Your task to perform on an android device: turn off improve location accuracy Image 0: 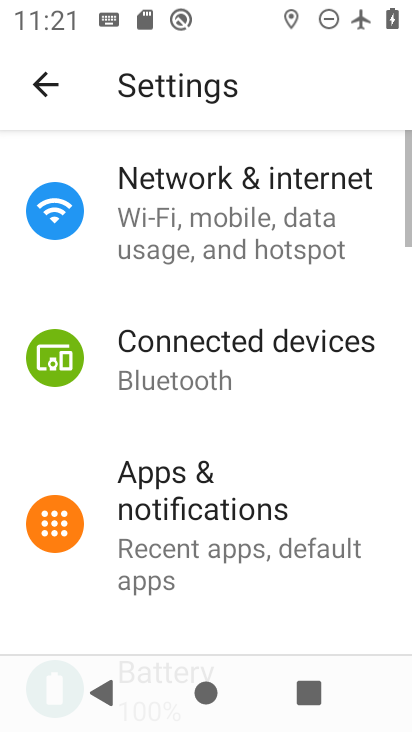
Step 0: press home button
Your task to perform on an android device: turn off improve location accuracy Image 1: 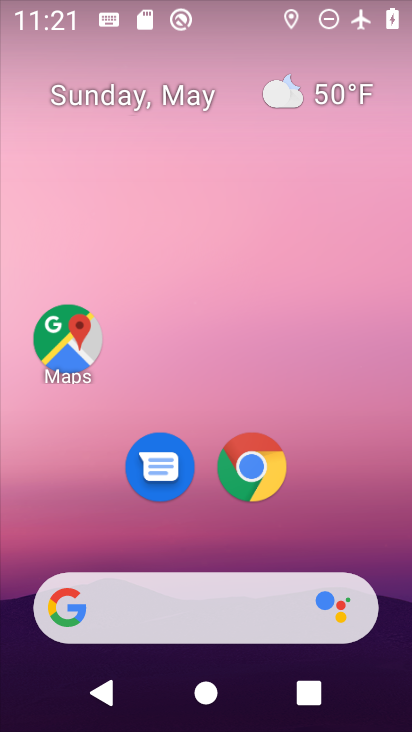
Step 1: drag from (209, 537) to (356, 45)
Your task to perform on an android device: turn off improve location accuracy Image 2: 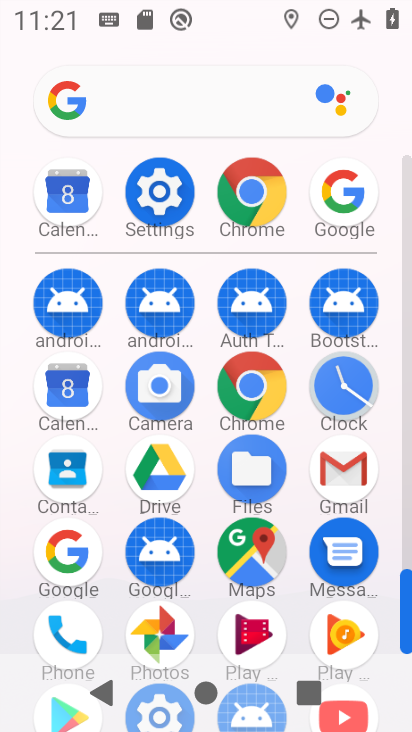
Step 2: click (164, 213)
Your task to perform on an android device: turn off improve location accuracy Image 3: 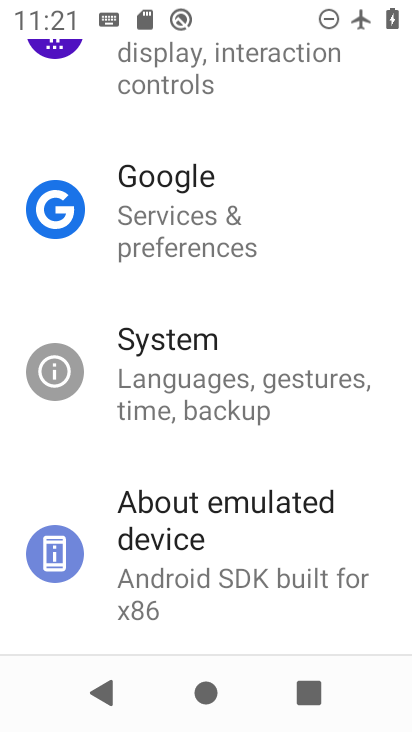
Step 3: drag from (257, 139) to (279, 527)
Your task to perform on an android device: turn off improve location accuracy Image 4: 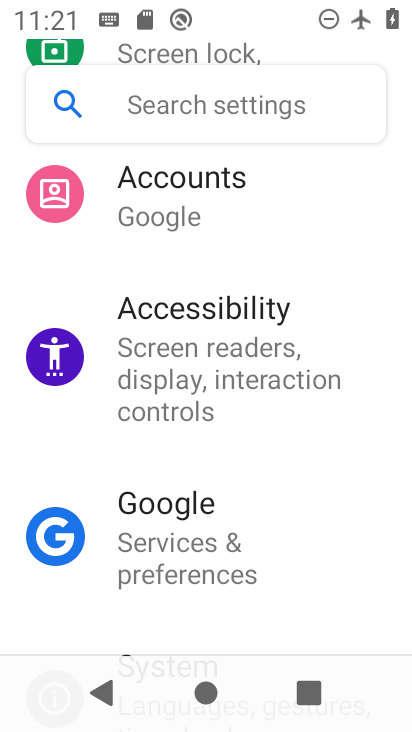
Step 4: drag from (262, 175) to (316, 523)
Your task to perform on an android device: turn off improve location accuracy Image 5: 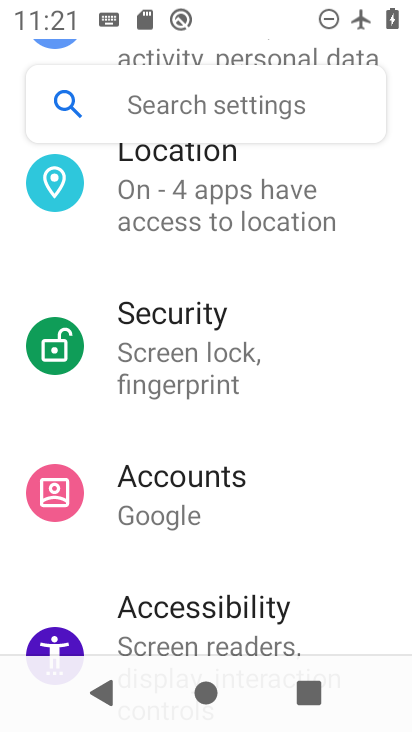
Step 5: click (238, 234)
Your task to perform on an android device: turn off improve location accuracy Image 6: 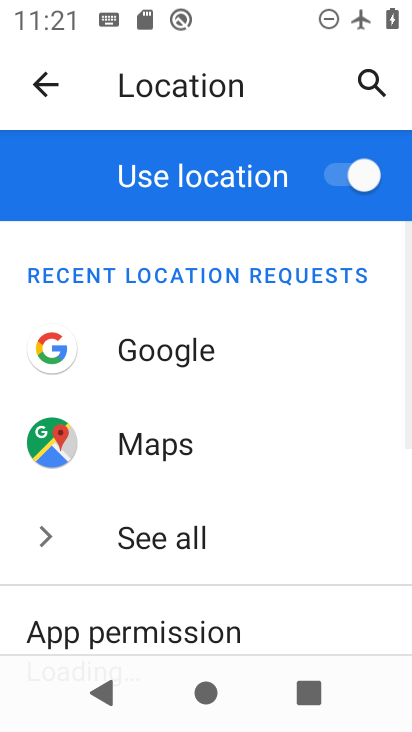
Step 6: drag from (269, 622) to (281, 299)
Your task to perform on an android device: turn off improve location accuracy Image 7: 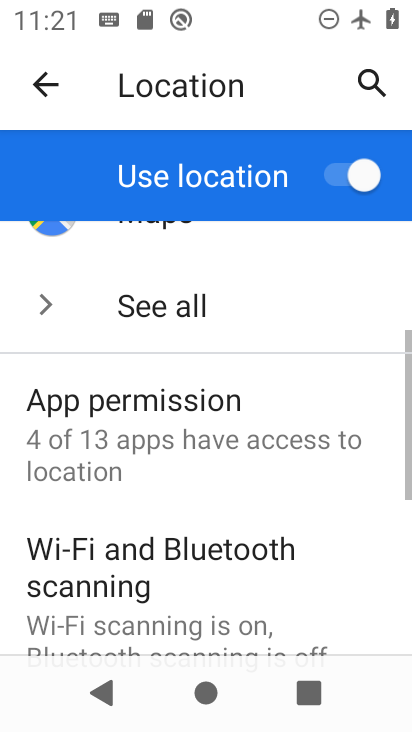
Step 7: drag from (291, 592) to (291, 342)
Your task to perform on an android device: turn off improve location accuracy Image 8: 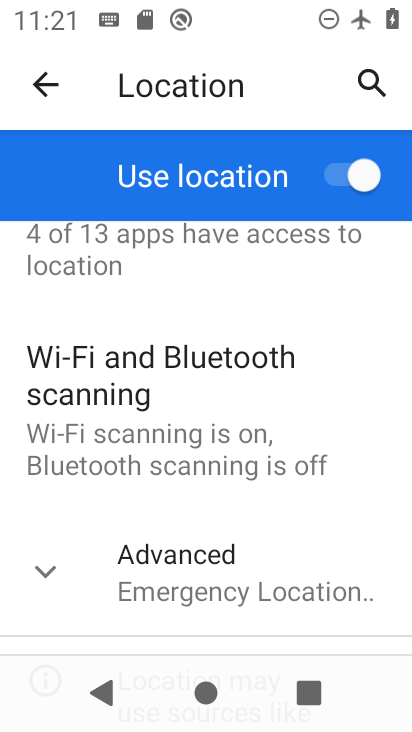
Step 8: click (263, 564)
Your task to perform on an android device: turn off improve location accuracy Image 9: 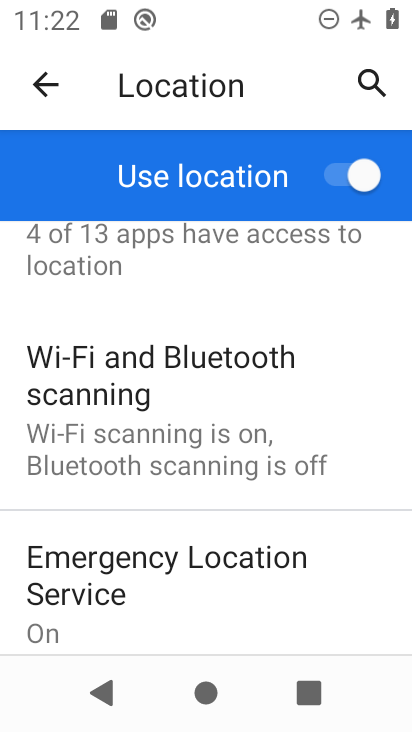
Step 9: drag from (253, 557) to (282, 291)
Your task to perform on an android device: turn off improve location accuracy Image 10: 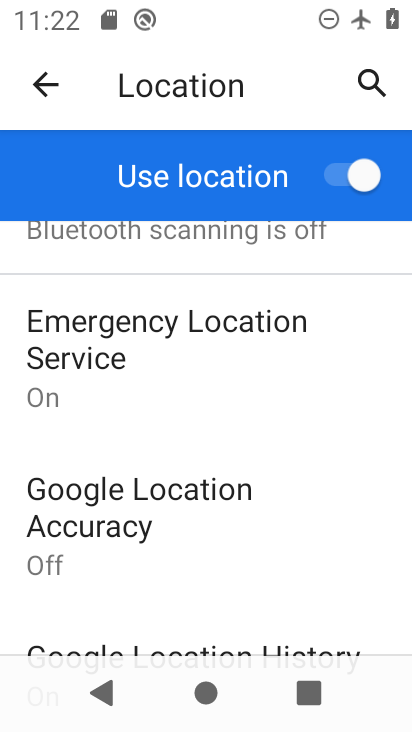
Step 10: drag from (263, 504) to (265, 286)
Your task to perform on an android device: turn off improve location accuracy Image 11: 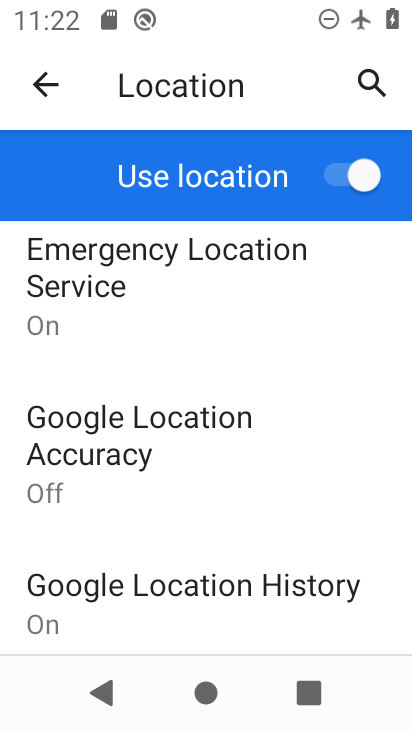
Step 11: click (221, 433)
Your task to perform on an android device: turn off improve location accuracy Image 12: 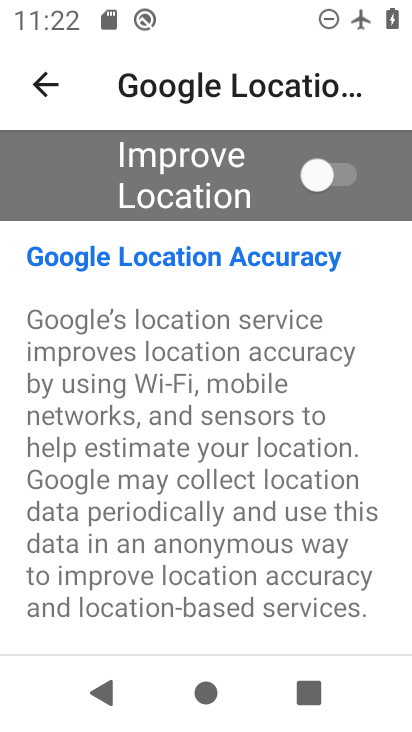
Step 12: task complete